Your task to perform on an android device: change notification settings in the gmail app Image 0: 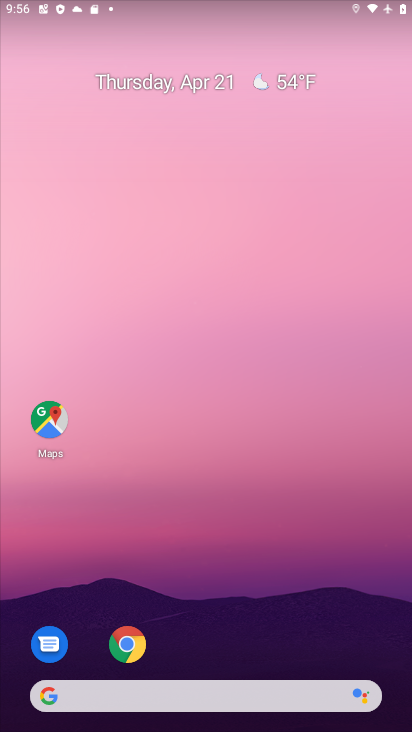
Step 0: drag from (207, 594) to (87, 61)
Your task to perform on an android device: change notification settings in the gmail app Image 1: 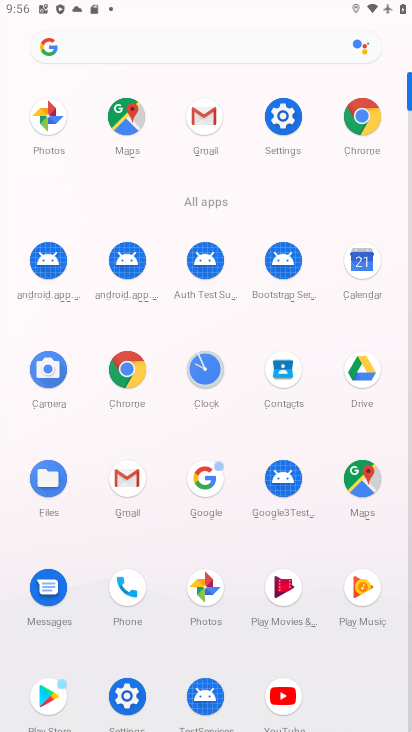
Step 1: click (208, 124)
Your task to perform on an android device: change notification settings in the gmail app Image 2: 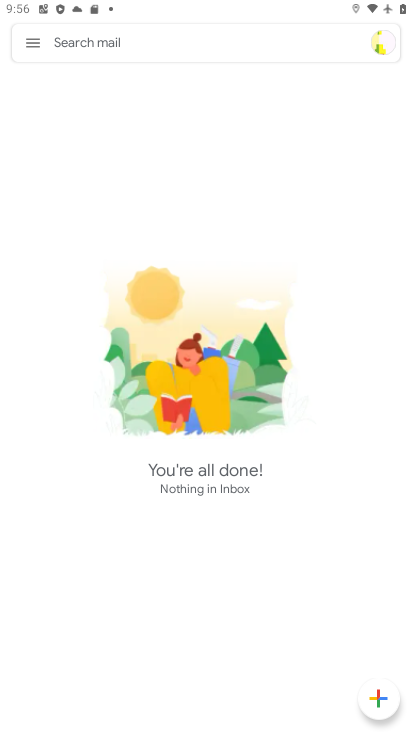
Step 2: click (30, 46)
Your task to perform on an android device: change notification settings in the gmail app Image 3: 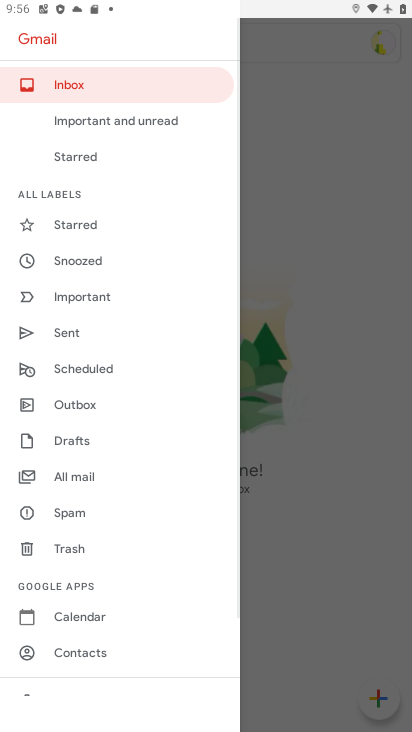
Step 3: drag from (102, 656) to (118, 147)
Your task to perform on an android device: change notification settings in the gmail app Image 4: 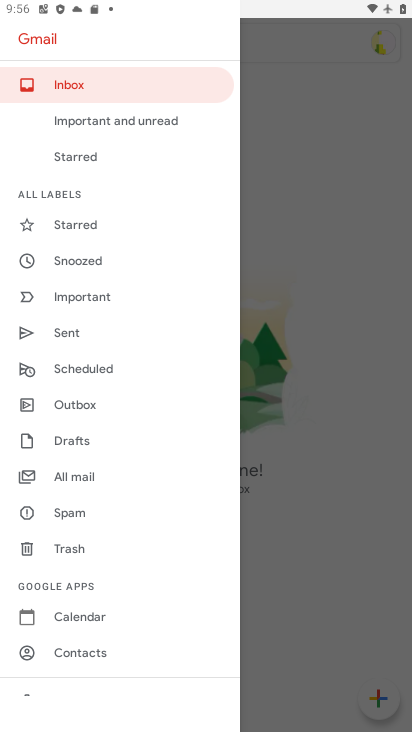
Step 4: drag from (164, 556) to (155, 162)
Your task to perform on an android device: change notification settings in the gmail app Image 5: 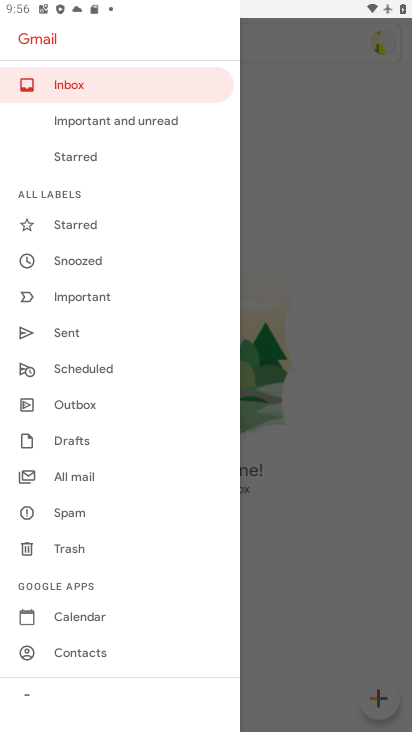
Step 5: drag from (129, 681) to (202, 361)
Your task to perform on an android device: change notification settings in the gmail app Image 6: 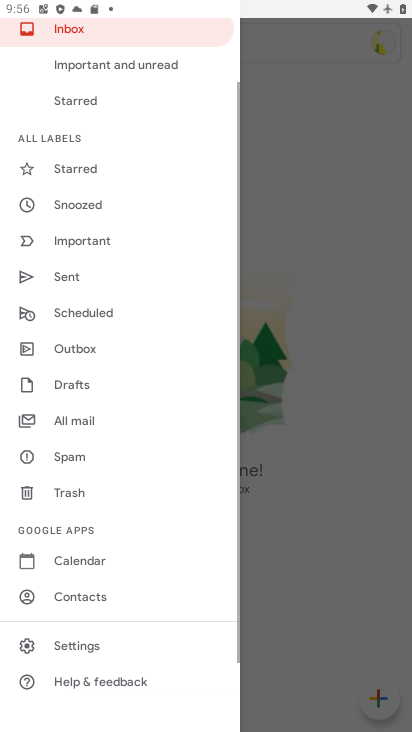
Step 6: click (92, 636)
Your task to perform on an android device: change notification settings in the gmail app Image 7: 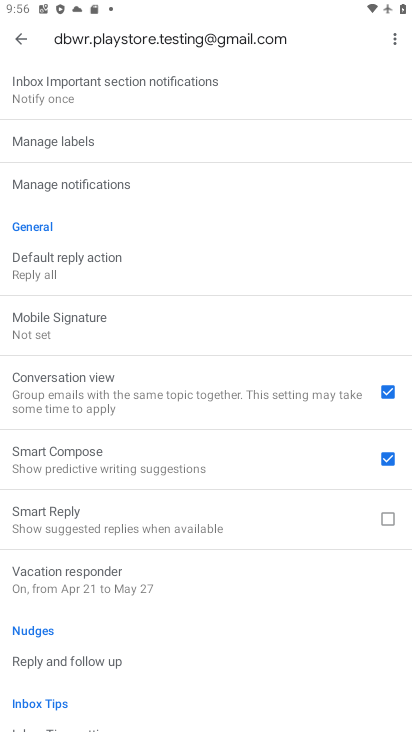
Step 7: click (67, 195)
Your task to perform on an android device: change notification settings in the gmail app Image 8: 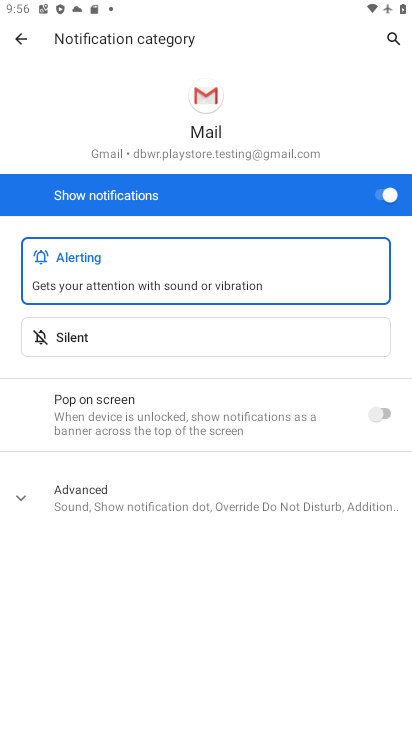
Step 8: click (391, 199)
Your task to perform on an android device: change notification settings in the gmail app Image 9: 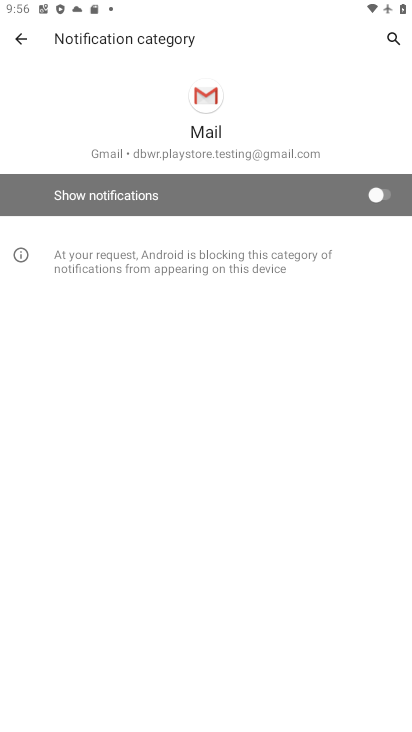
Step 9: task complete